Your task to perform on an android device: Go to display settings Image 0: 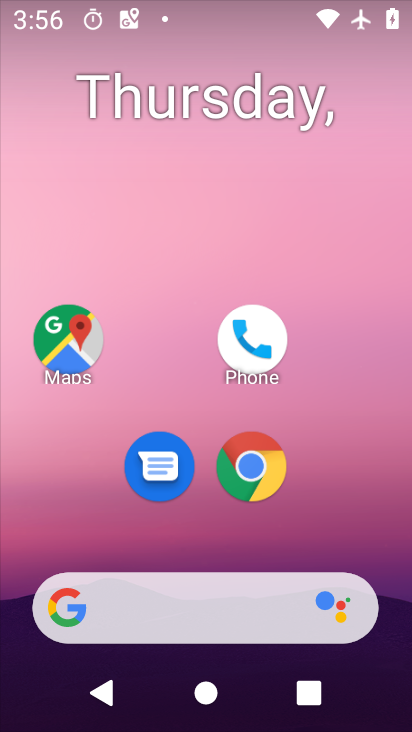
Step 0: drag from (220, 551) to (241, 185)
Your task to perform on an android device: Go to display settings Image 1: 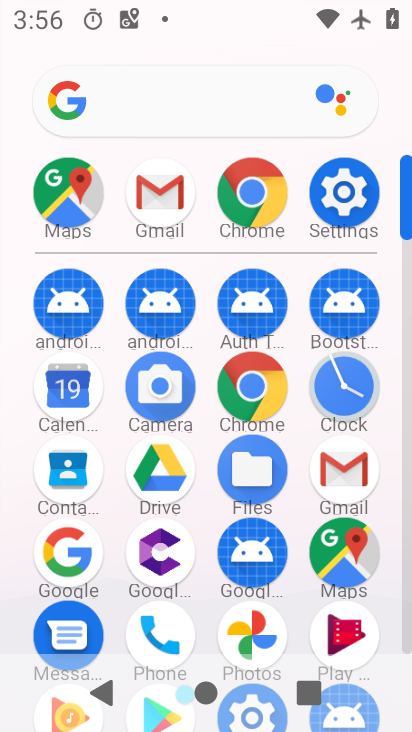
Step 1: click (355, 182)
Your task to perform on an android device: Go to display settings Image 2: 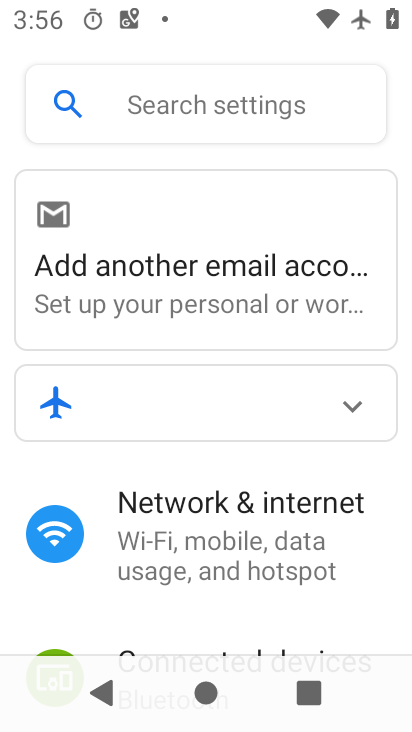
Step 2: drag from (208, 564) to (275, 90)
Your task to perform on an android device: Go to display settings Image 3: 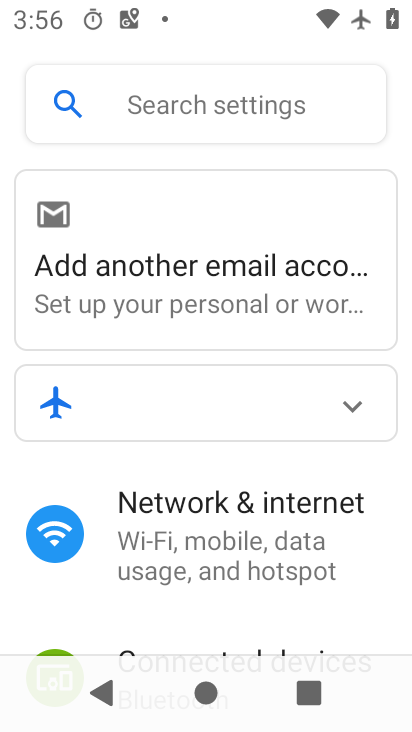
Step 3: drag from (233, 615) to (308, 150)
Your task to perform on an android device: Go to display settings Image 4: 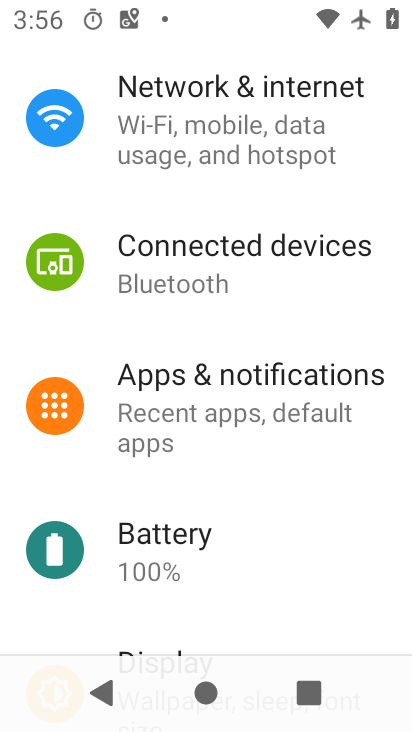
Step 4: drag from (234, 556) to (302, 182)
Your task to perform on an android device: Go to display settings Image 5: 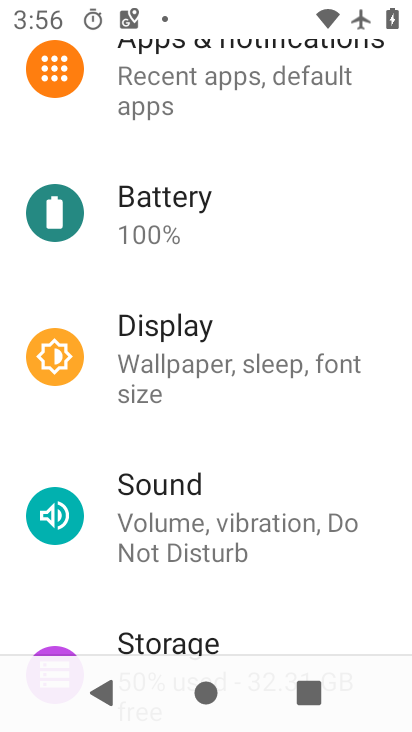
Step 5: click (226, 368)
Your task to perform on an android device: Go to display settings Image 6: 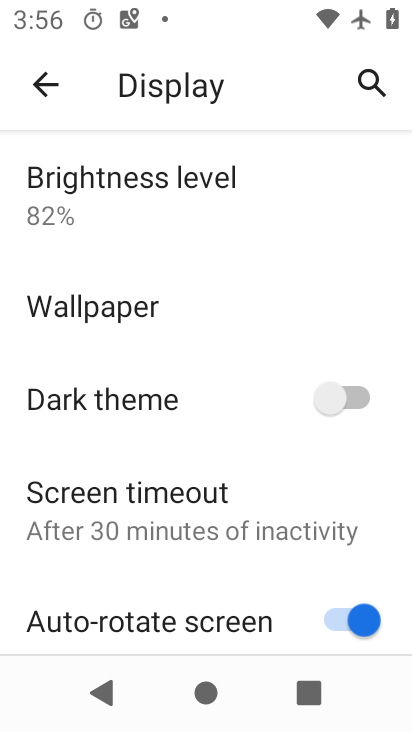
Step 6: task complete